Your task to perform on an android device: turn on bluetooth scan Image 0: 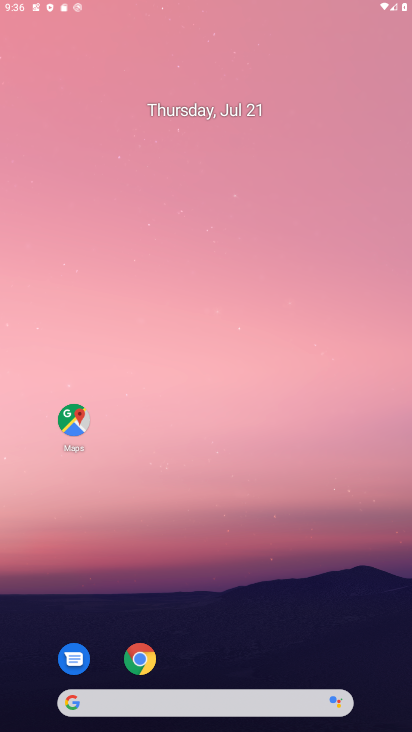
Step 0: press home button
Your task to perform on an android device: turn on bluetooth scan Image 1: 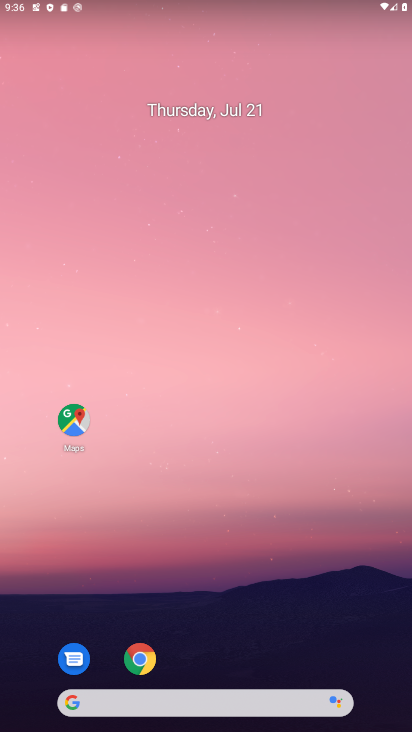
Step 1: drag from (323, 600) to (312, 222)
Your task to perform on an android device: turn on bluetooth scan Image 2: 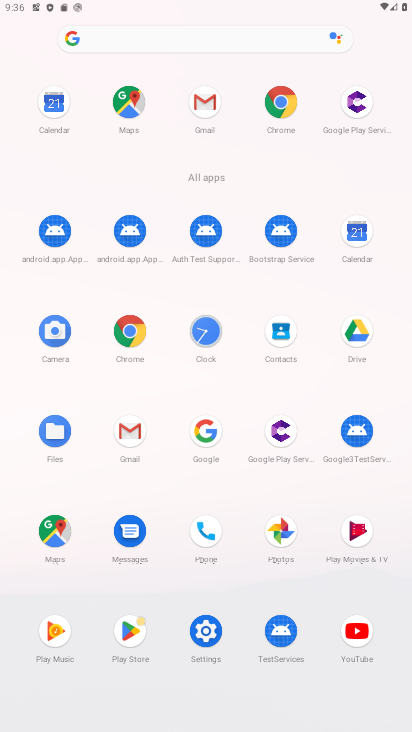
Step 2: click (233, 627)
Your task to perform on an android device: turn on bluetooth scan Image 3: 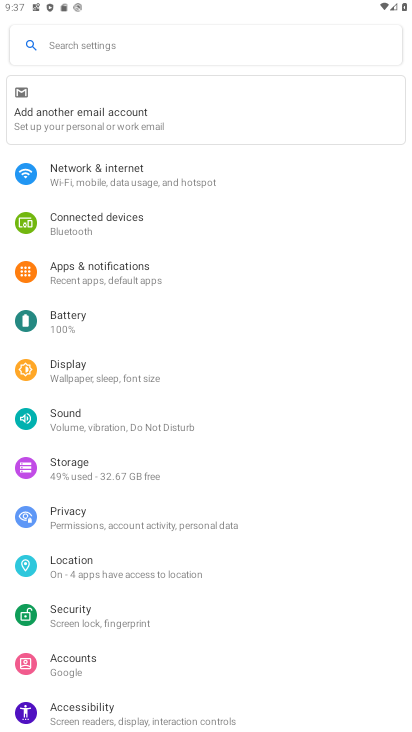
Step 3: click (63, 558)
Your task to perform on an android device: turn on bluetooth scan Image 4: 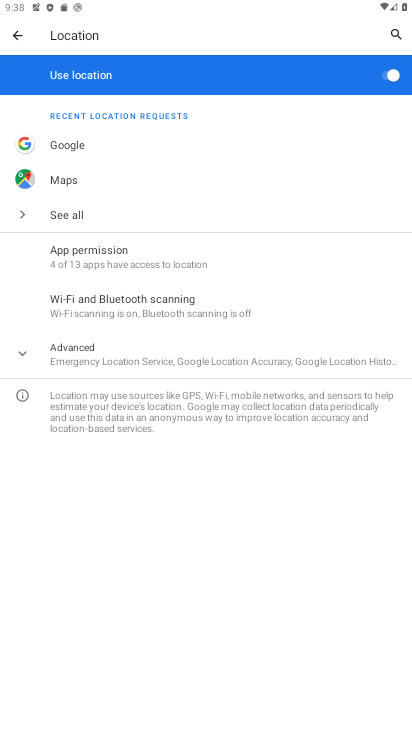
Step 4: click (97, 329)
Your task to perform on an android device: turn on bluetooth scan Image 5: 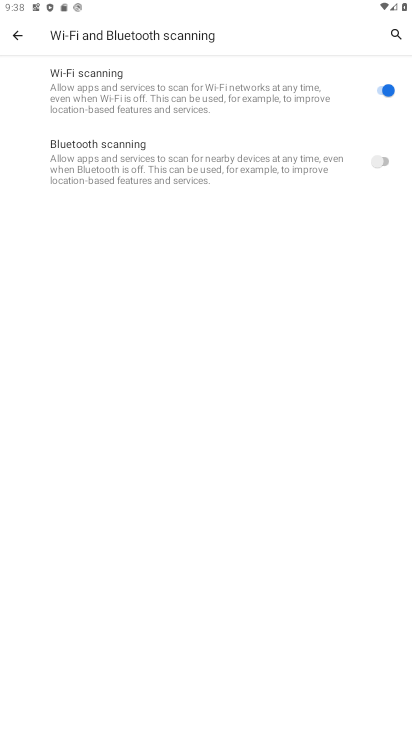
Step 5: click (323, 170)
Your task to perform on an android device: turn on bluetooth scan Image 6: 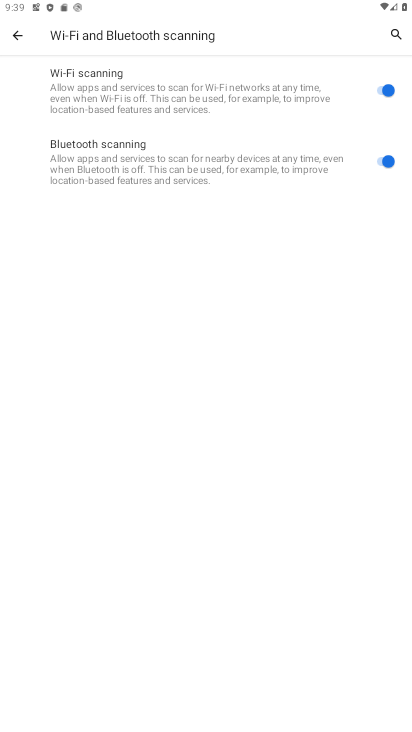
Step 6: task complete